Your task to perform on an android device: turn on location history Image 0: 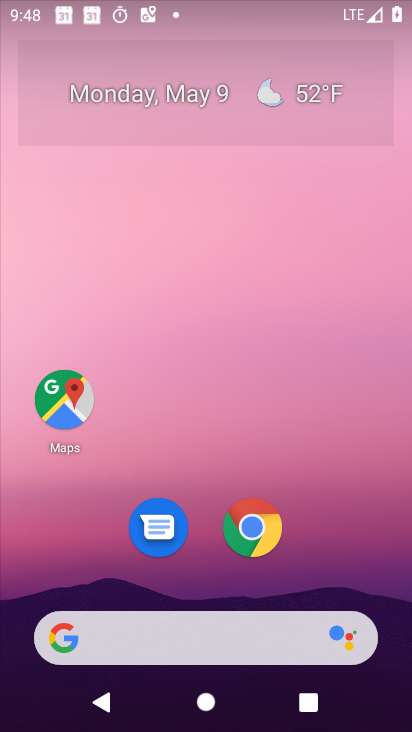
Step 0: drag from (358, 549) to (349, 64)
Your task to perform on an android device: turn on location history Image 1: 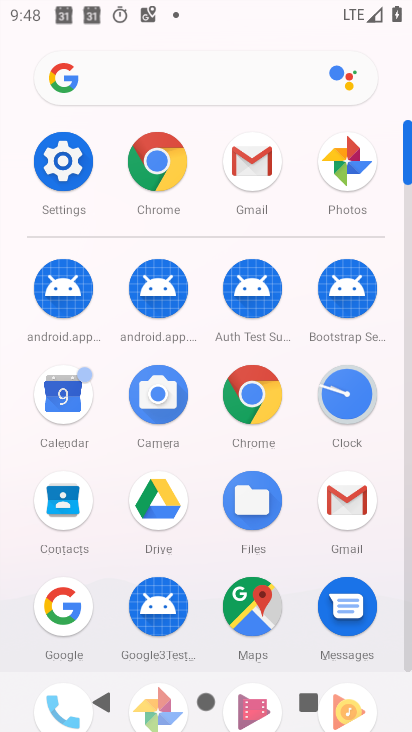
Step 1: click (49, 155)
Your task to perform on an android device: turn on location history Image 2: 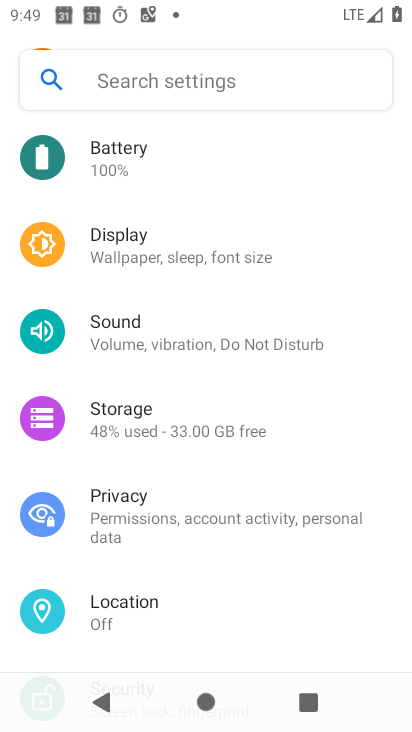
Step 2: click (113, 601)
Your task to perform on an android device: turn on location history Image 3: 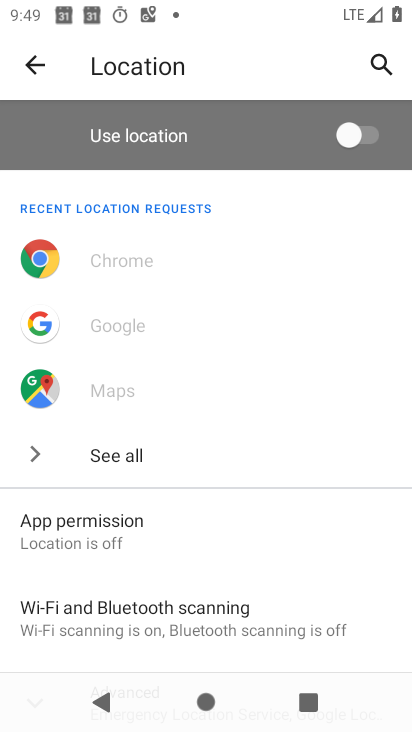
Step 3: drag from (197, 572) to (220, 205)
Your task to perform on an android device: turn on location history Image 4: 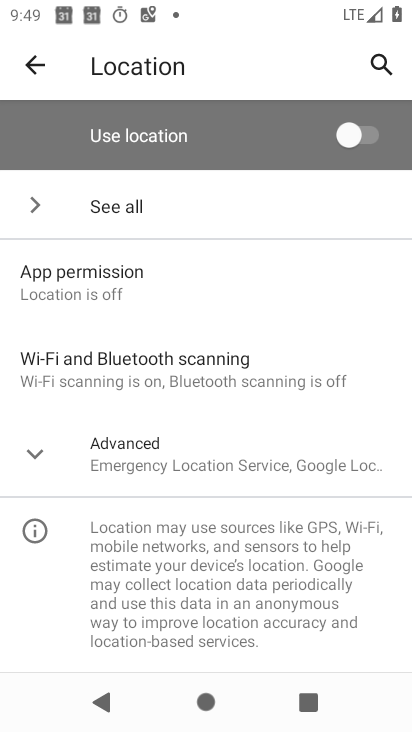
Step 4: click (212, 451)
Your task to perform on an android device: turn on location history Image 5: 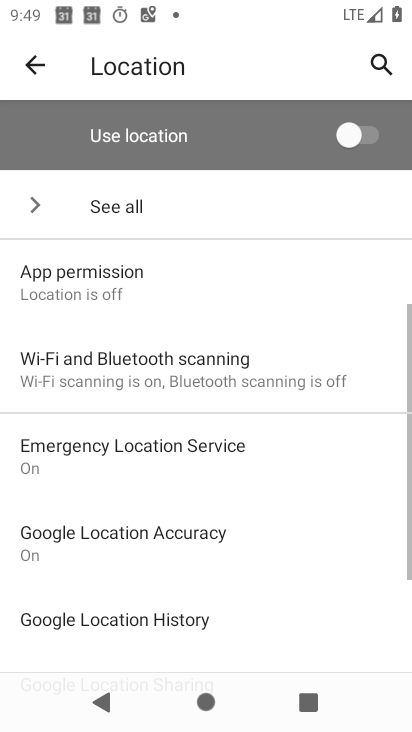
Step 5: drag from (294, 573) to (298, 346)
Your task to perform on an android device: turn on location history Image 6: 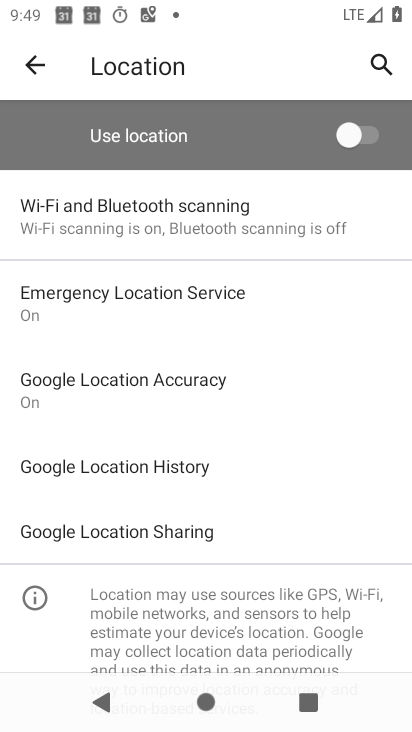
Step 6: click (167, 476)
Your task to perform on an android device: turn on location history Image 7: 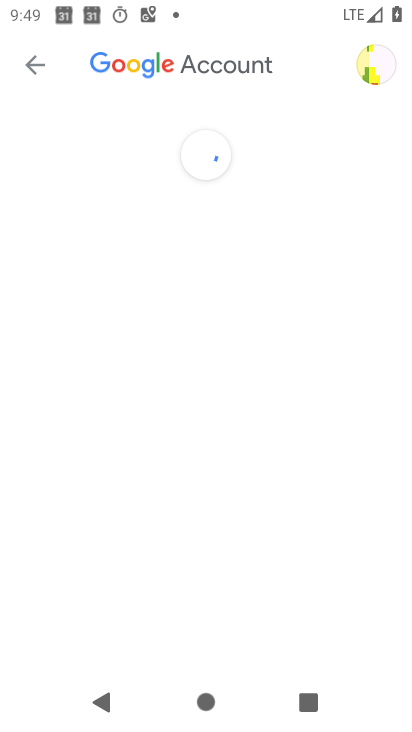
Step 7: drag from (104, 565) to (128, 208)
Your task to perform on an android device: turn on location history Image 8: 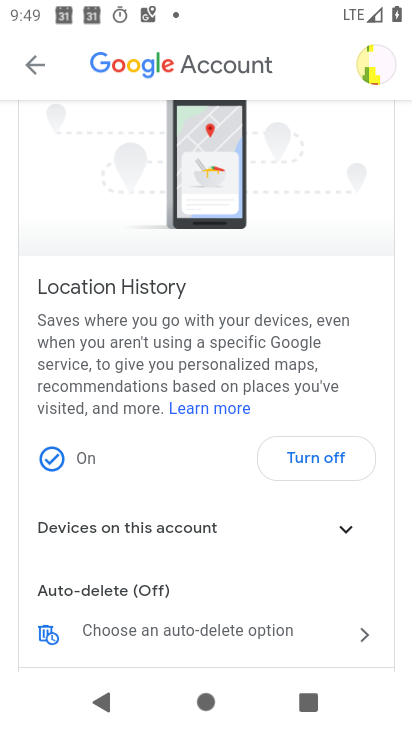
Step 8: drag from (151, 567) to (118, 228)
Your task to perform on an android device: turn on location history Image 9: 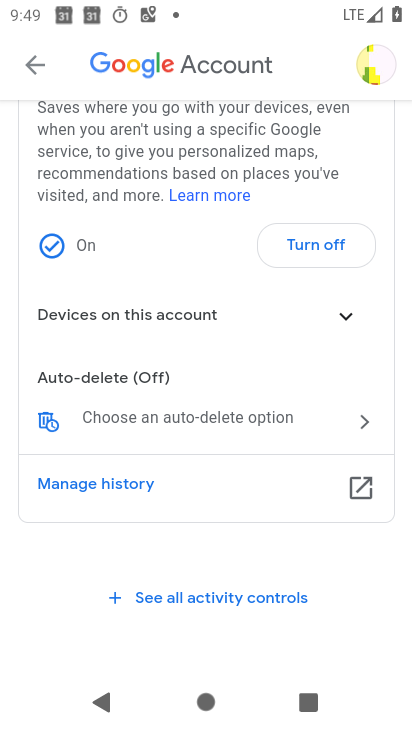
Step 9: click (145, 483)
Your task to perform on an android device: turn on location history Image 10: 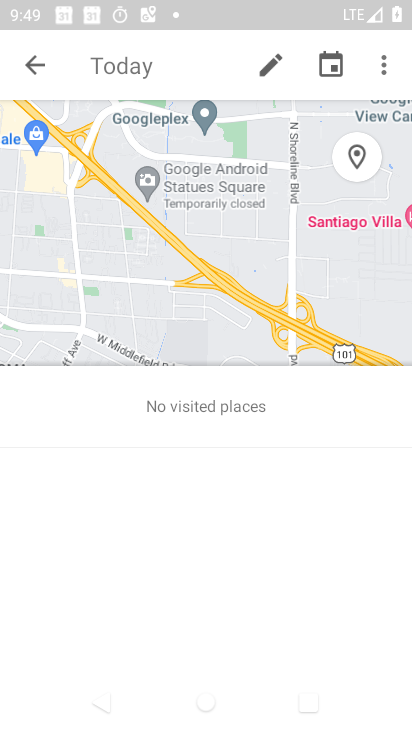
Step 10: click (385, 64)
Your task to perform on an android device: turn on location history Image 11: 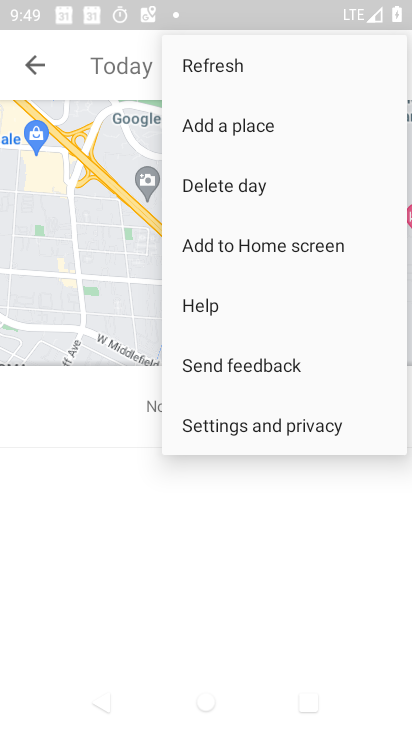
Step 11: click (210, 435)
Your task to perform on an android device: turn on location history Image 12: 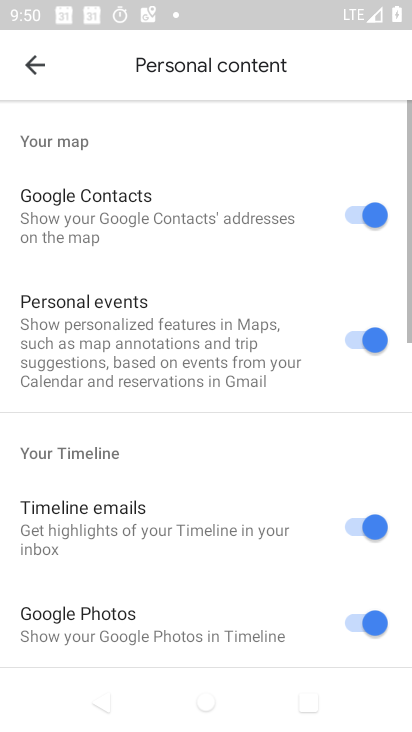
Step 12: task complete